Your task to perform on an android device: remove spam from my inbox in the gmail app Image 0: 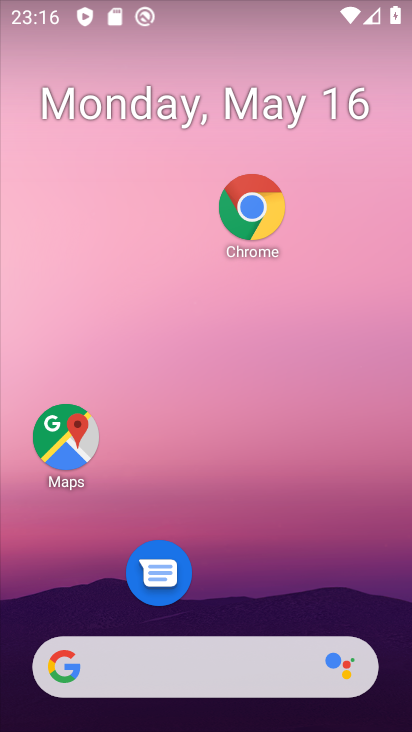
Step 0: drag from (305, 453) to (281, 3)
Your task to perform on an android device: remove spam from my inbox in the gmail app Image 1: 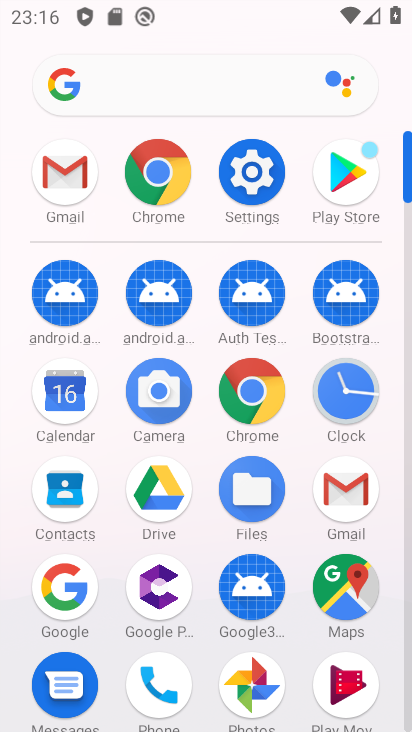
Step 1: click (340, 511)
Your task to perform on an android device: remove spam from my inbox in the gmail app Image 2: 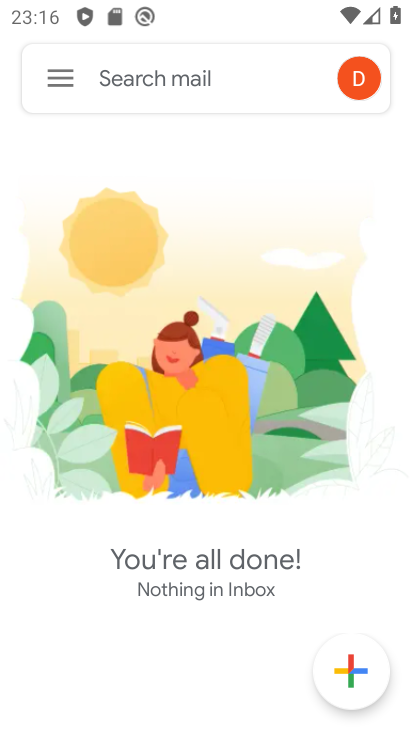
Step 2: click (66, 67)
Your task to perform on an android device: remove spam from my inbox in the gmail app Image 3: 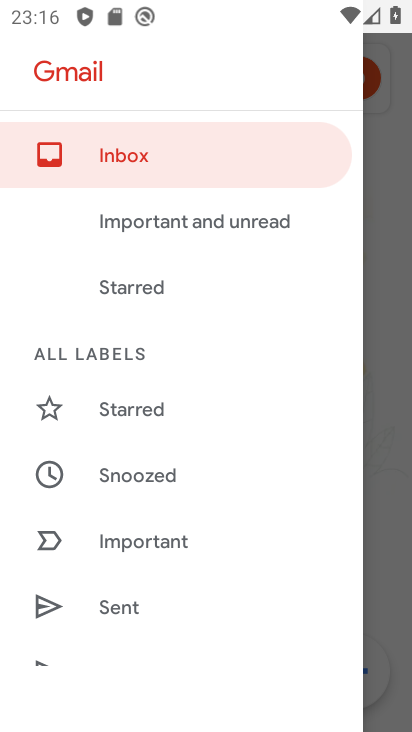
Step 3: drag from (161, 640) to (188, 228)
Your task to perform on an android device: remove spam from my inbox in the gmail app Image 4: 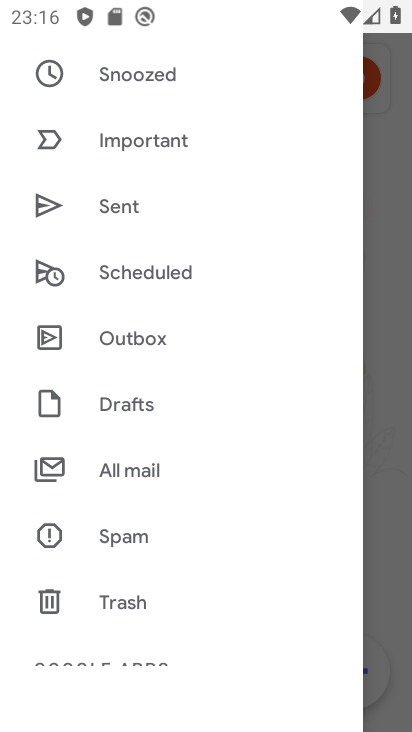
Step 4: drag from (234, 178) to (225, 345)
Your task to perform on an android device: remove spam from my inbox in the gmail app Image 5: 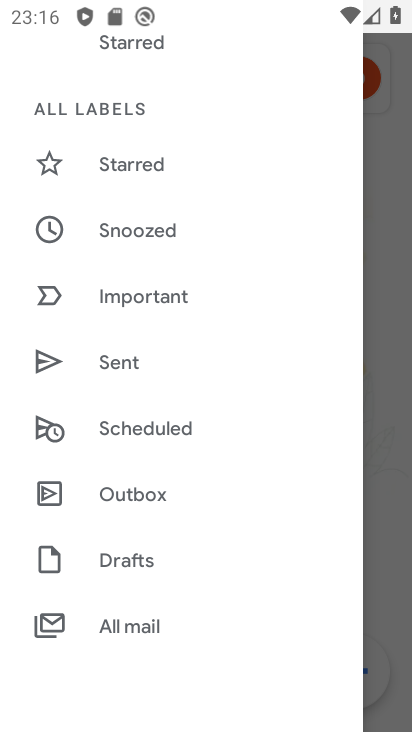
Step 5: drag from (165, 648) to (158, 462)
Your task to perform on an android device: remove spam from my inbox in the gmail app Image 6: 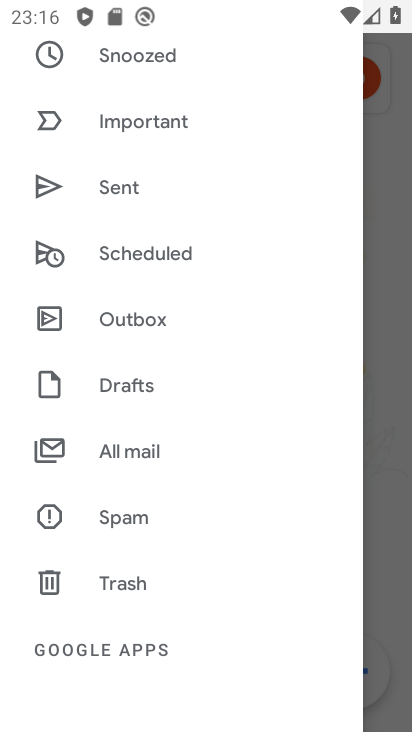
Step 6: click (135, 517)
Your task to perform on an android device: remove spam from my inbox in the gmail app Image 7: 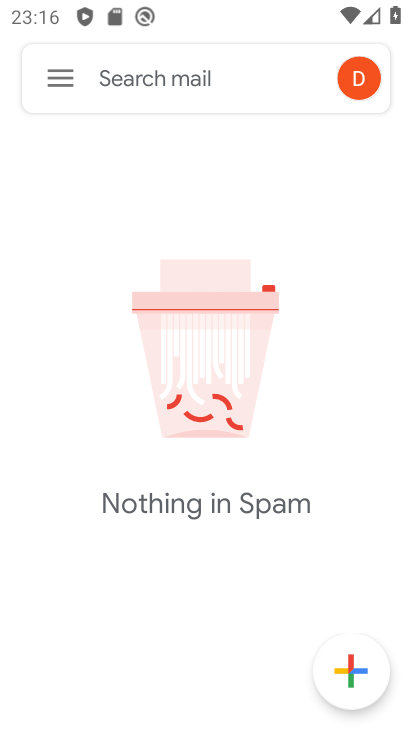
Step 7: task complete